Your task to perform on an android device: Search for a new highlighter Image 0: 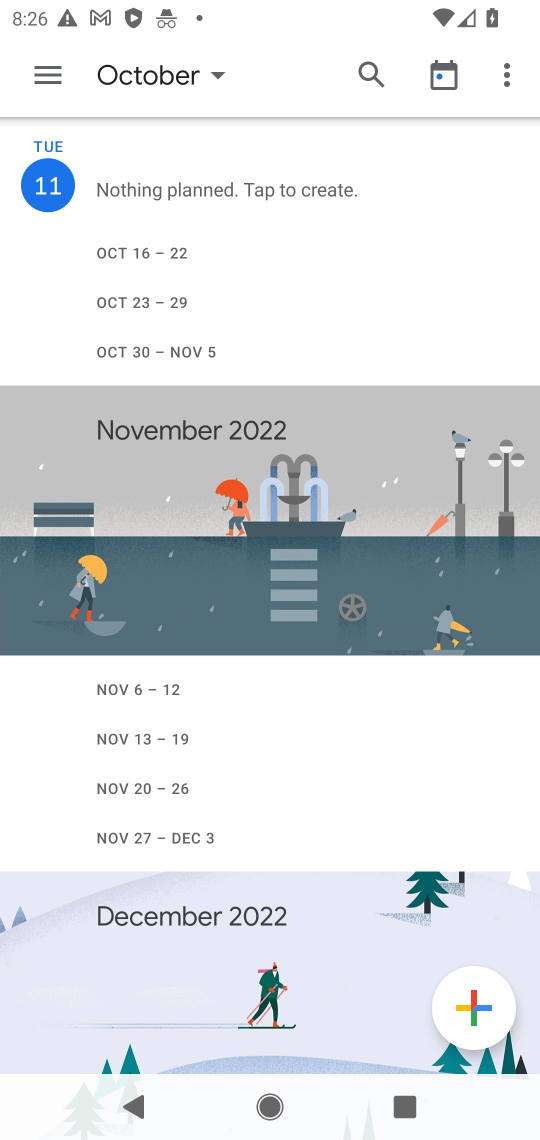
Step 0: press home button
Your task to perform on an android device: Search for a new highlighter Image 1: 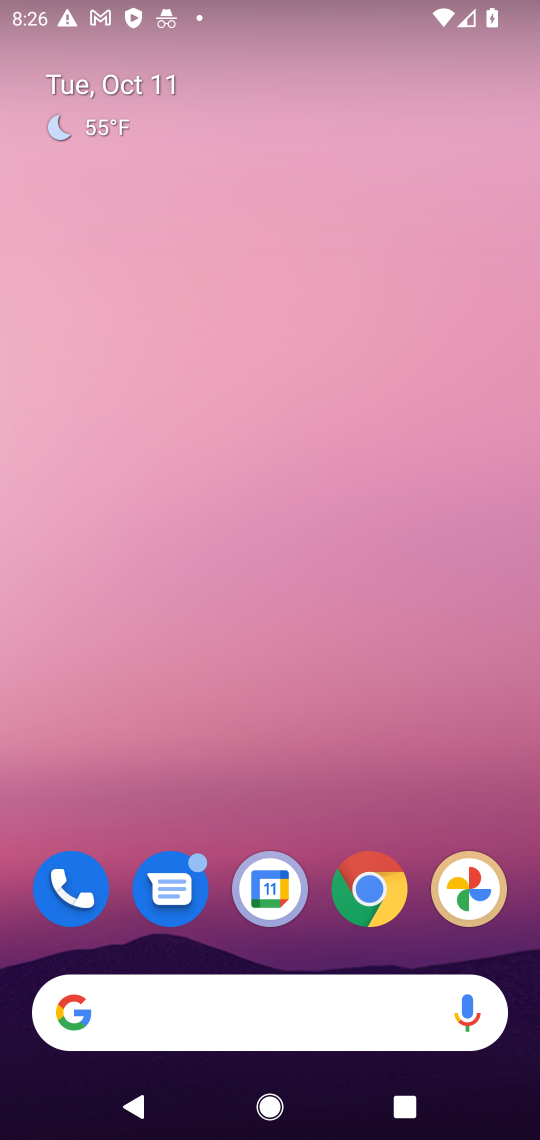
Step 1: click (236, 1002)
Your task to perform on an android device: Search for a new highlighter Image 2: 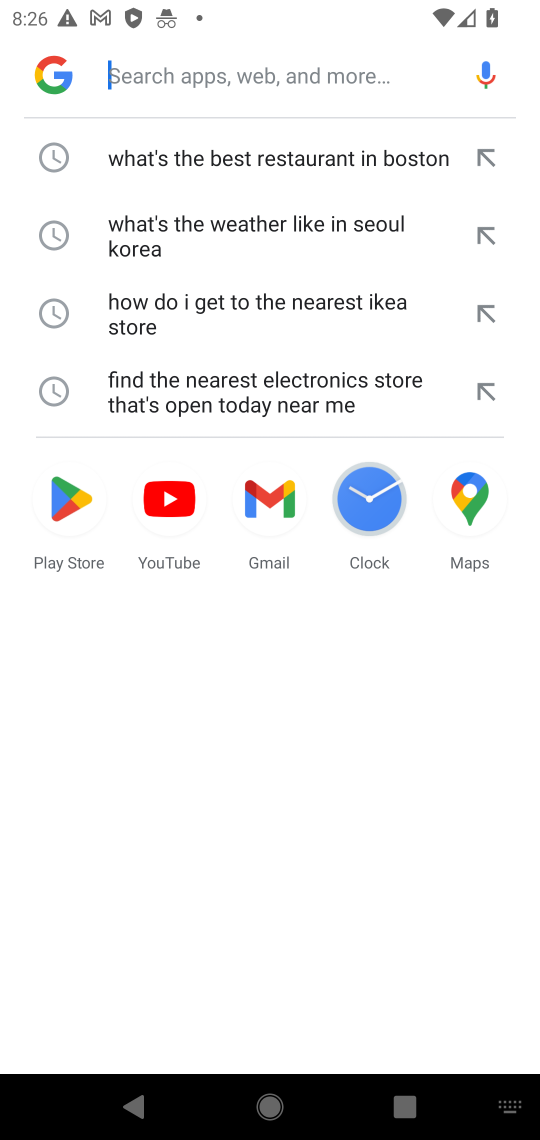
Step 2: click (170, 80)
Your task to perform on an android device: Search for a new highlighter Image 3: 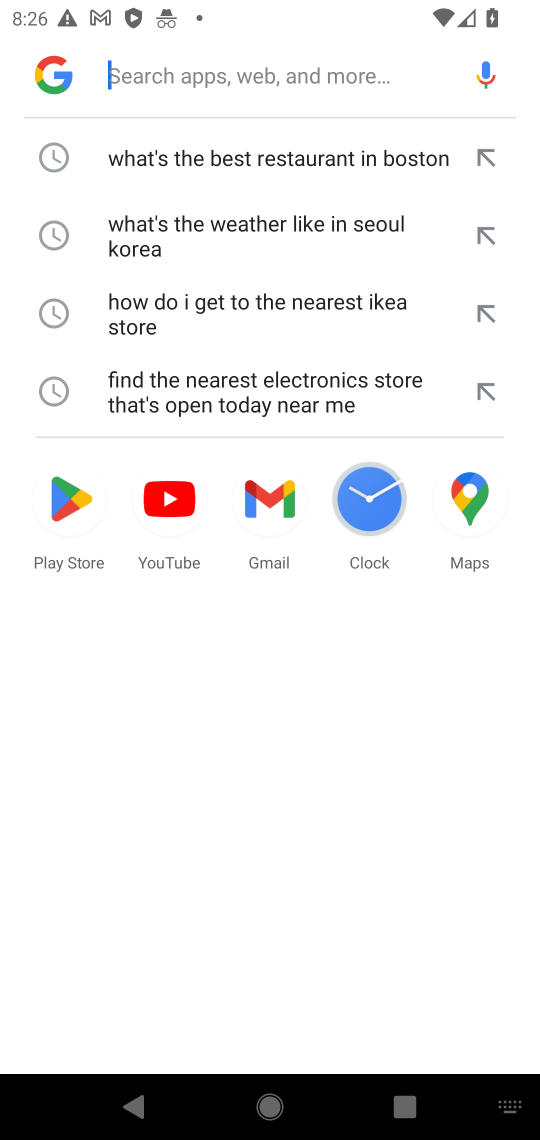
Step 3: type "new highlighter"
Your task to perform on an android device: Search for a new highlighter Image 4: 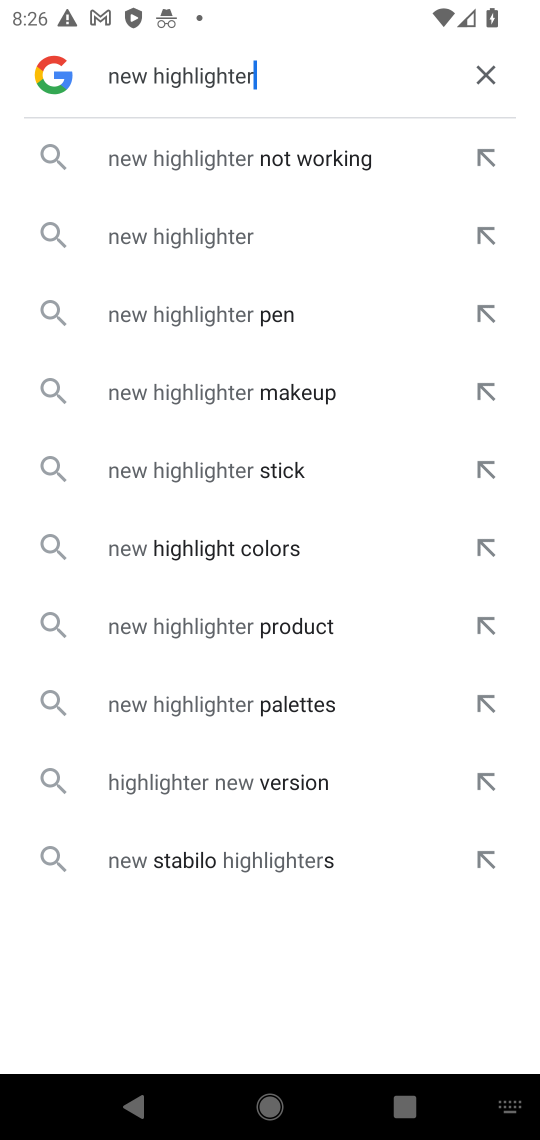
Step 4: click (178, 237)
Your task to perform on an android device: Search for a new highlighter Image 5: 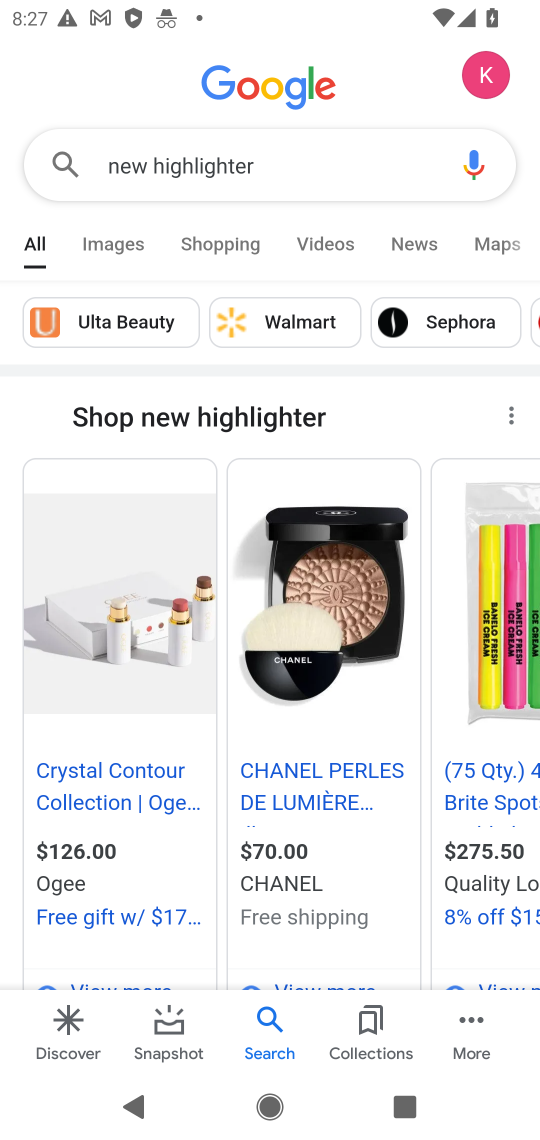
Step 5: task complete